Your task to perform on an android device: find which apps use the phone's location Image 0: 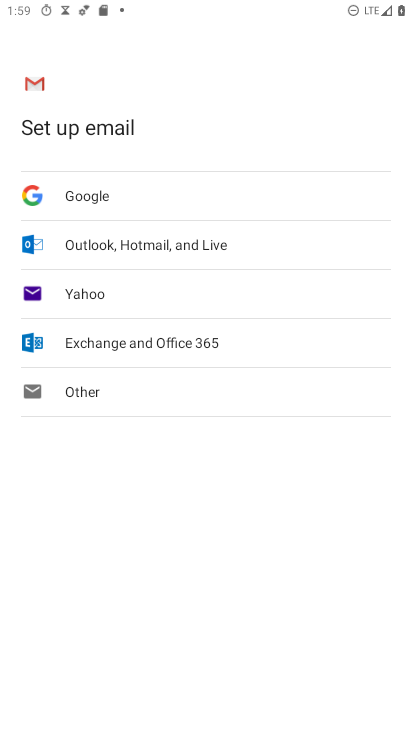
Step 0: press home button
Your task to perform on an android device: find which apps use the phone's location Image 1: 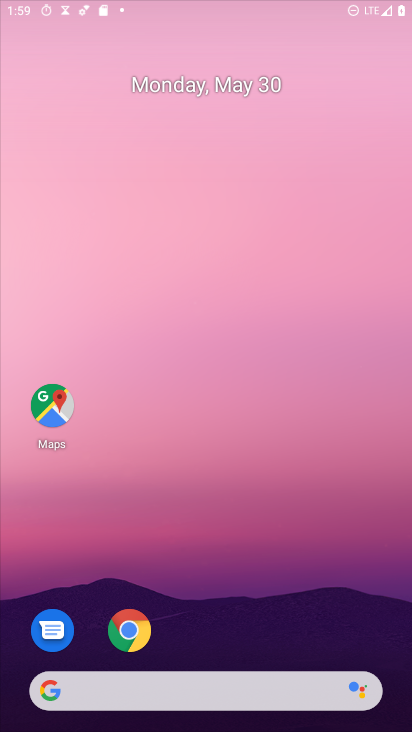
Step 1: drag from (317, 724) to (265, 77)
Your task to perform on an android device: find which apps use the phone's location Image 2: 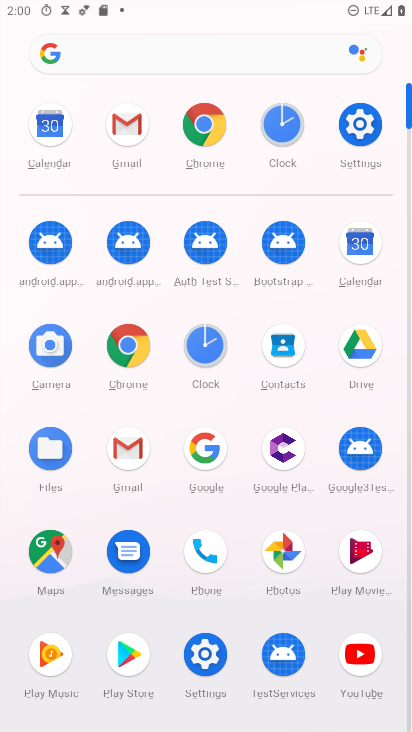
Step 2: click (364, 111)
Your task to perform on an android device: find which apps use the phone's location Image 3: 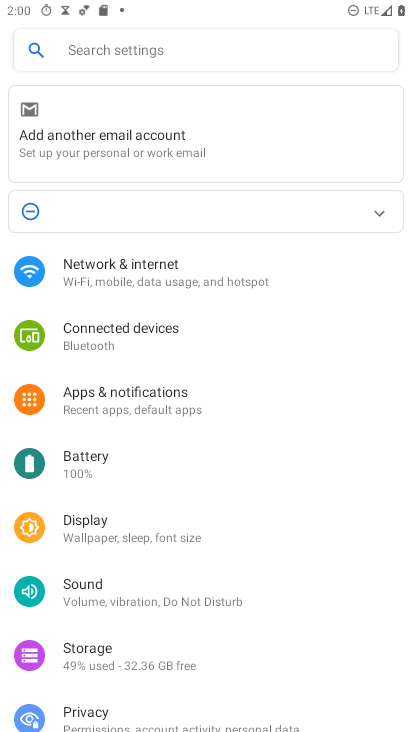
Step 3: click (171, 63)
Your task to perform on an android device: find which apps use the phone's location Image 4: 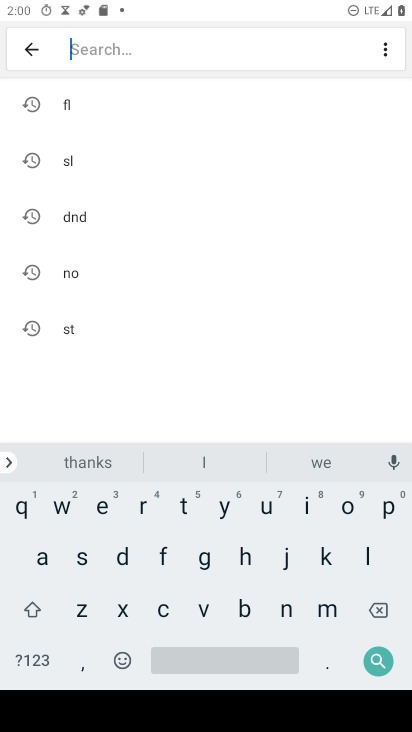
Step 4: click (366, 553)
Your task to perform on an android device: find which apps use the phone's location Image 5: 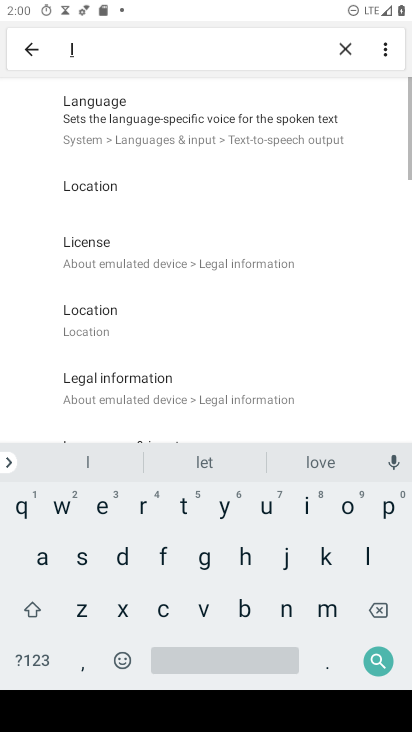
Step 5: click (339, 509)
Your task to perform on an android device: find which apps use the phone's location Image 6: 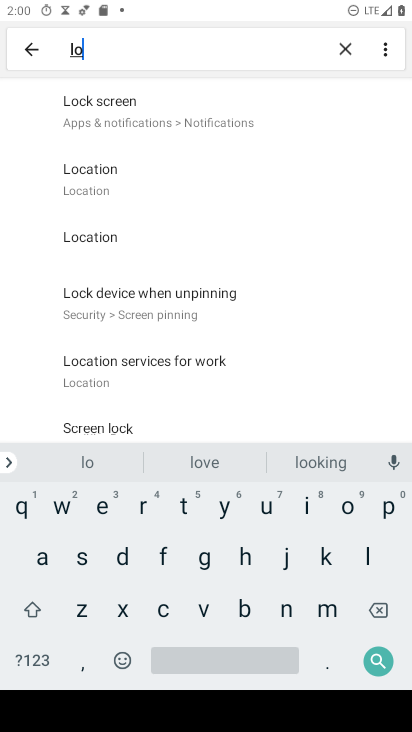
Step 6: click (137, 173)
Your task to perform on an android device: find which apps use the phone's location Image 7: 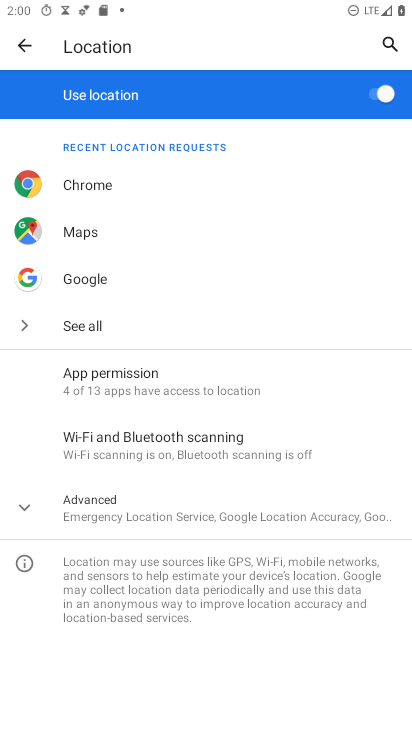
Step 7: click (44, 490)
Your task to perform on an android device: find which apps use the phone's location Image 8: 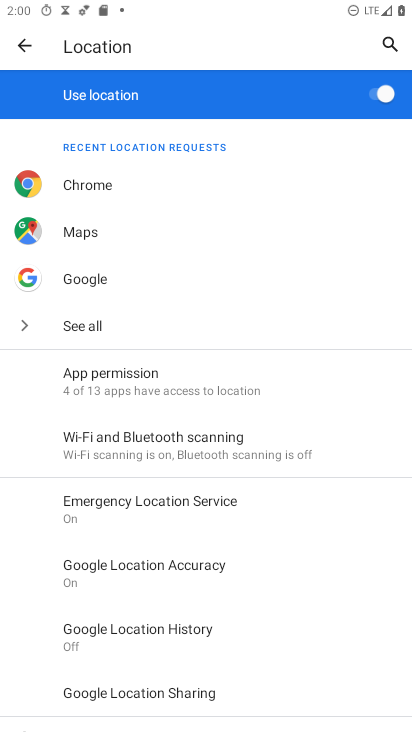
Step 8: task complete